Your task to perform on an android device: toggle sleep mode Image 0: 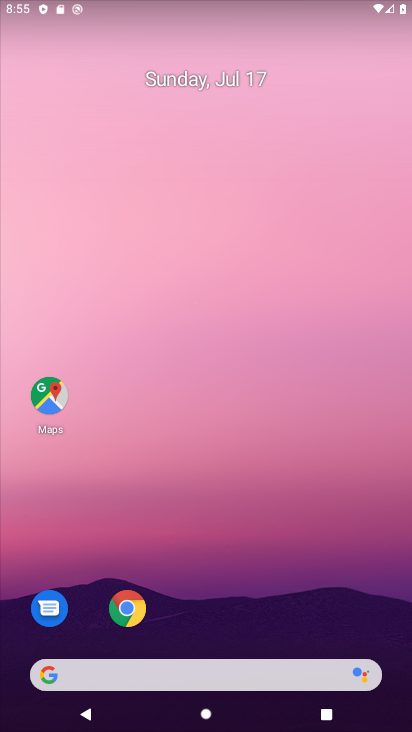
Step 0: drag from (186, 674) to (306, 63)
Your task to perform on an android device: toggle sleep mode Image 1: 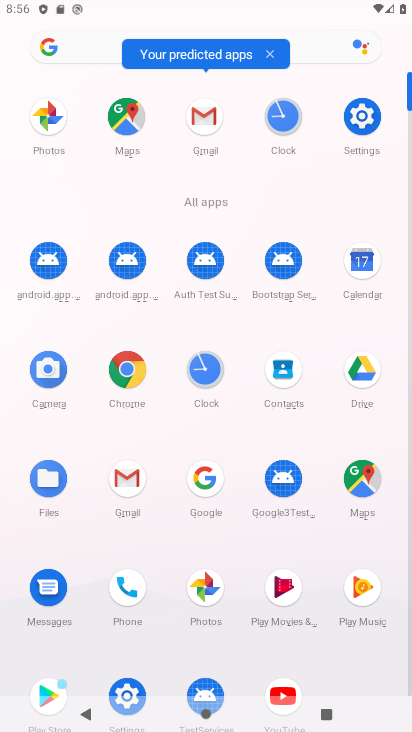
Step 1: click (356, 119)
Your task to perform on an android device: toggle sleep mode Image 2: 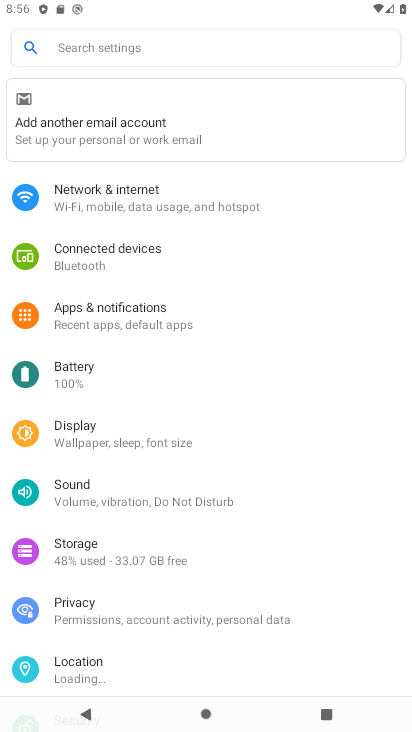
Step 2: click (78, 427)
Your task to perform on an android device: toggle sleep mode Image 3: 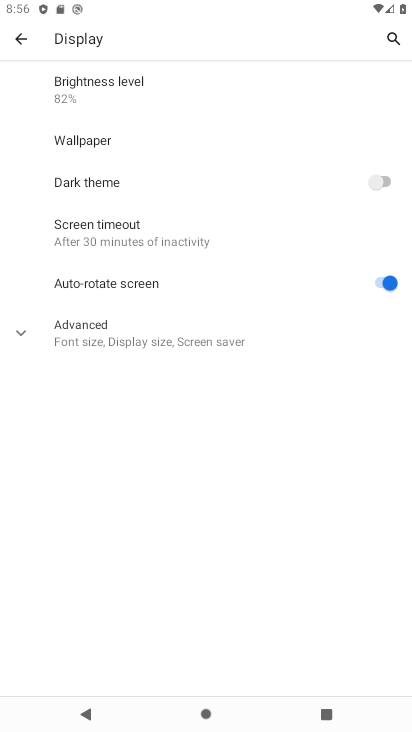
Step 3: click (100, 237)
Your task to perform on an android device: toggle sleep mode Image 4: 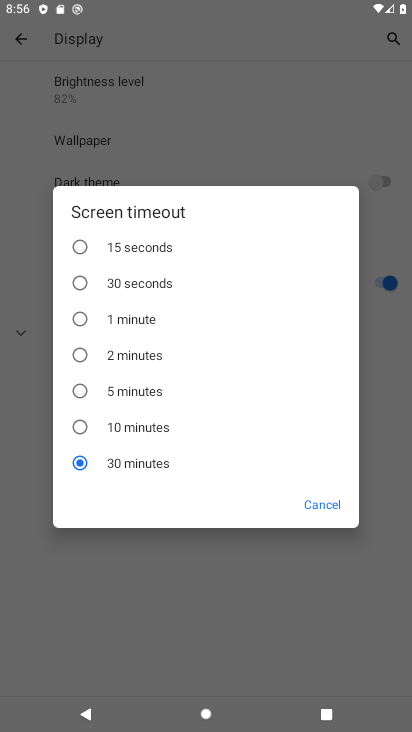
Step 4: click (77, 365)
Your task to perform on an android device: toggle sleep mode Image 5: 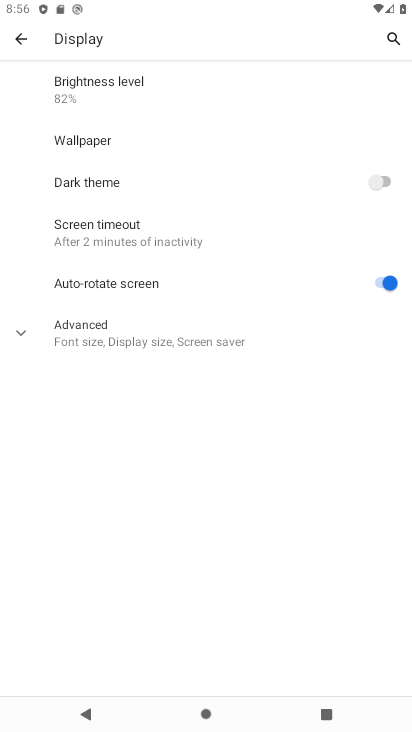
Step 5: click (201, 339)
Your task to perform on an android device: toggle sleep mode Image 6: 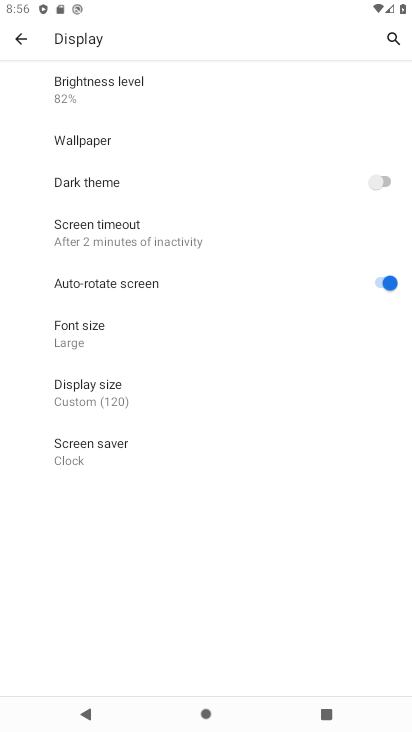
Step 6: task complete